Your task to perform on an android device: install app "Paramount+ | Peak Streaming" Image 0: 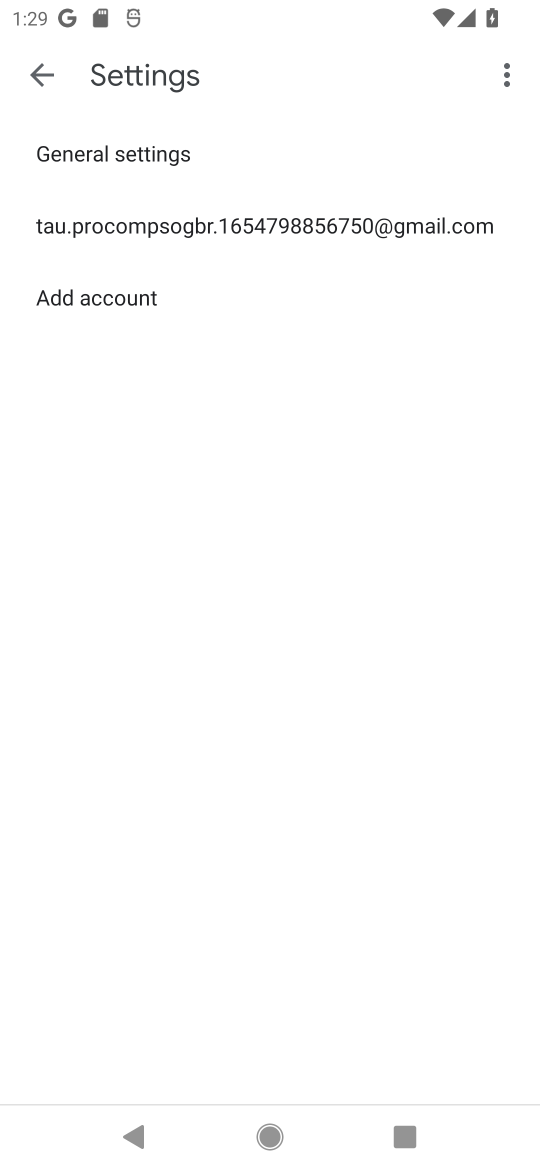
Step 0: press back button
Your task to perform on an android device: install app "Paramount+ | Peak Streaming" Image 1: 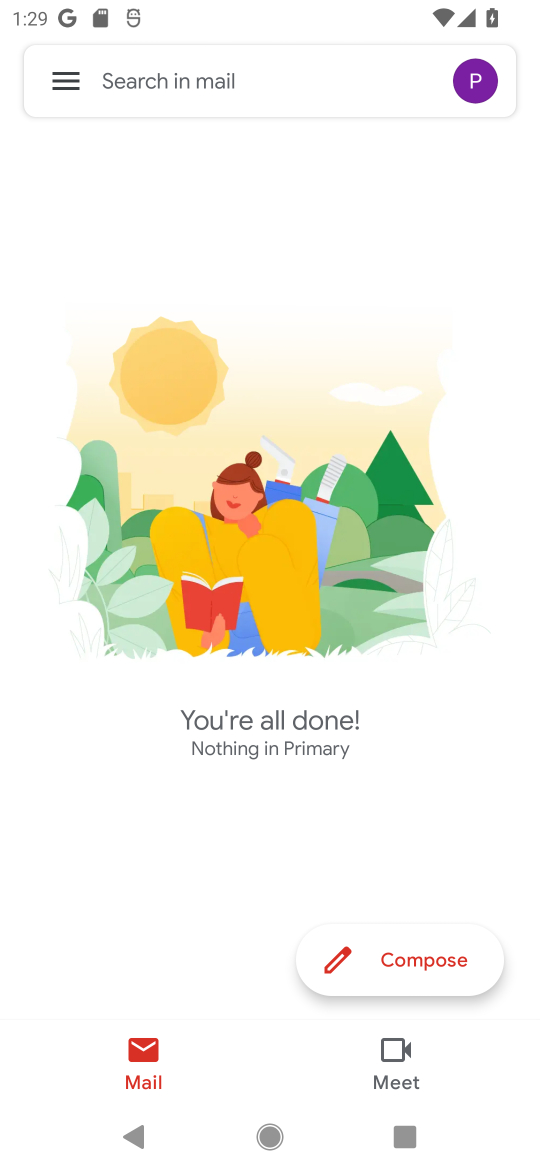
Step 1: press back button
Your task to perform on an android device: install app "Paramount+ | Peak Streaming" Image 2: 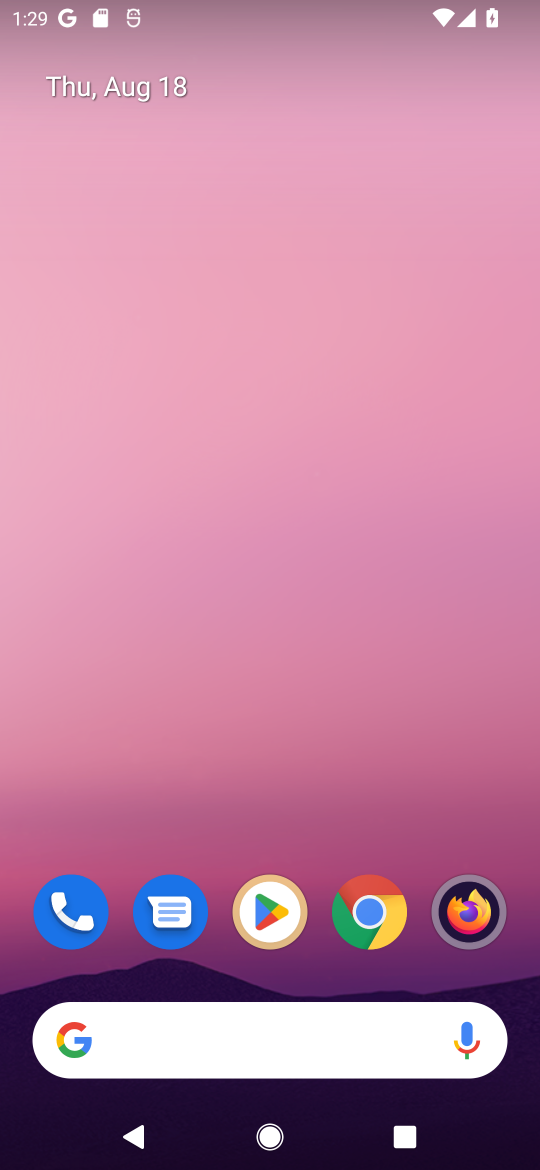
Step 2: click (250, 913)
Your task to perform on an android device: install app "Paramount+ | Peak Streaming" Image 3: 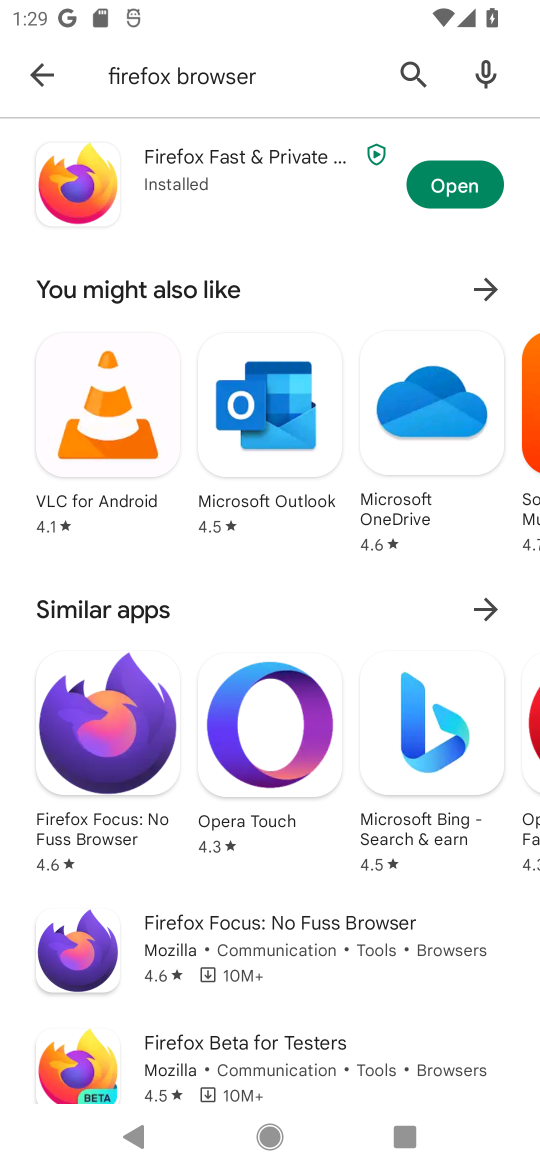
Step 3: click (415, 83)
Your task to perform on an android device: install app "Paramount+ | Peak Streaming" Image 4: 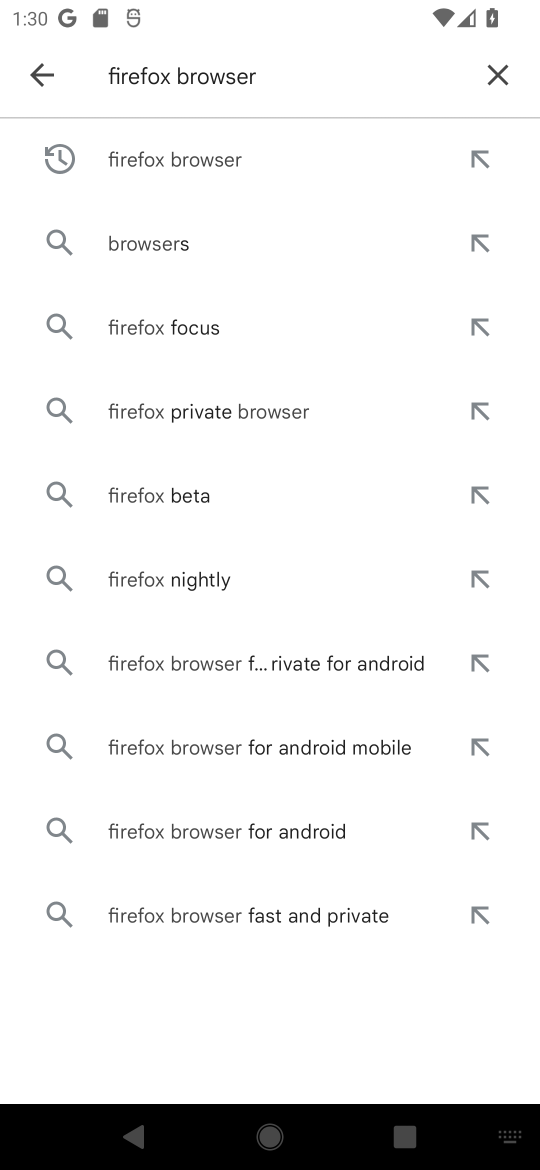
Step 4: click (497, 70)
Your task to perform on an android device: install app "Paramount+ | Peak Streaming" Image 5: 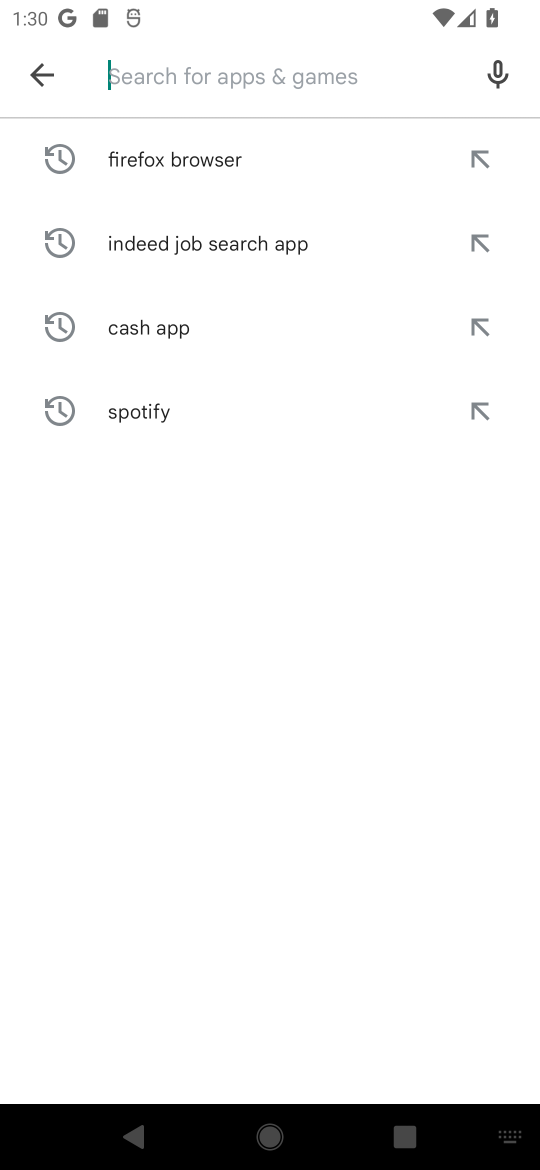
Step 5: click (132, 41)
Your task to perform on an android device: install app "Paramount+ | Peak Streaming" Image 6: 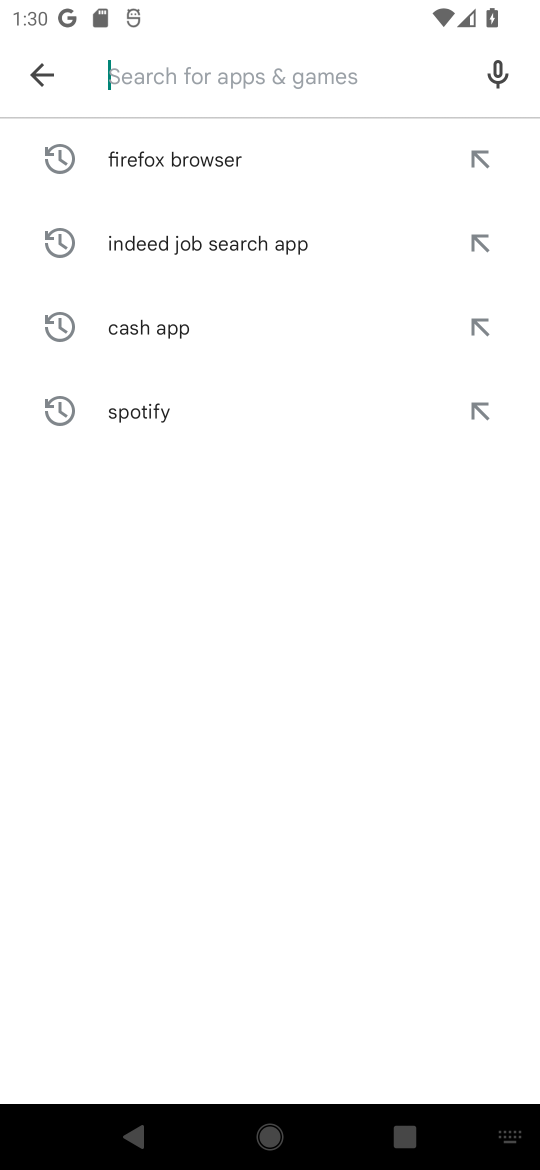
Step 6: type "Paramount+"
Your task to perform on an android device: install app "Paramount+ | Peak Streaming" Image 7: 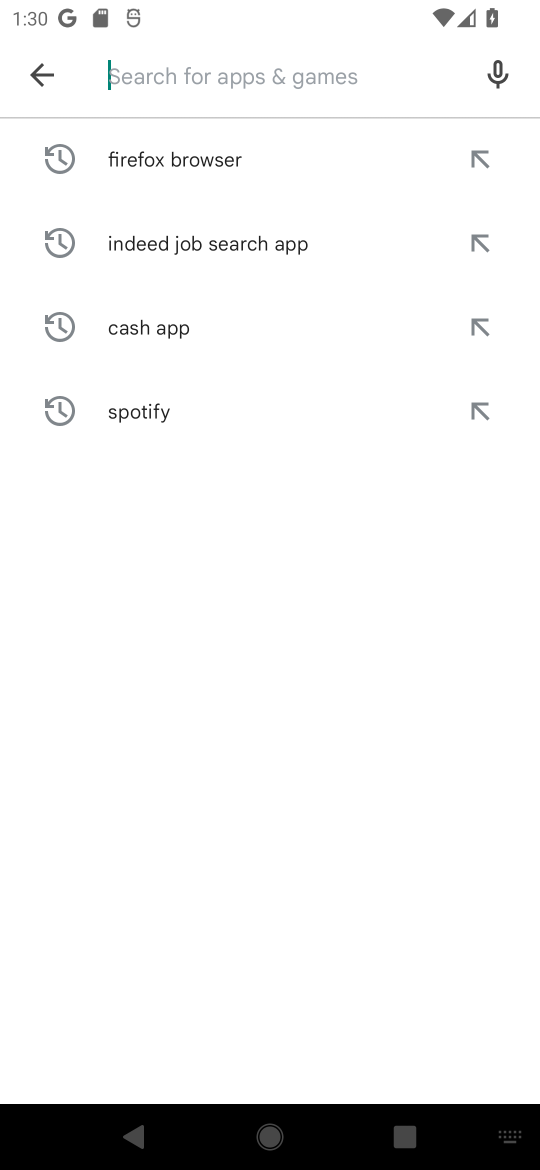
Step 7: click (364, 692)
Your task to perform on an android device: install app "Paramount+ | Peak Streaming" Image 8: 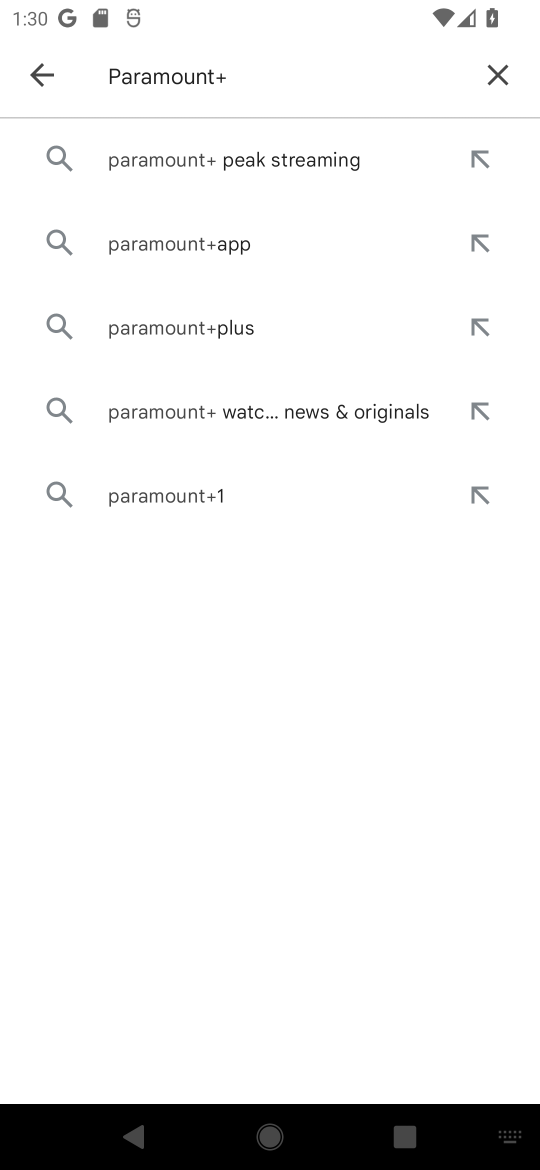
Step 8: click (216, 160)
Your task to perform on an android device: install app "Paramount+ | Peak Streaming" Image 9: 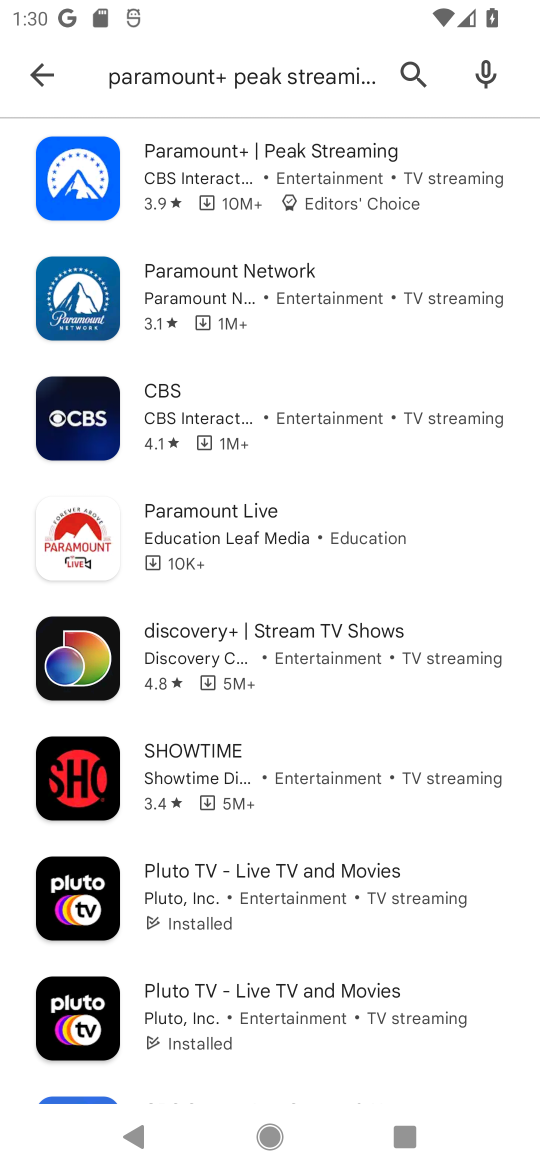
Step 9: click (221, 179)
Your task to perform on an android device: install app "Paramount+ | Peak Streaming" Image 10: 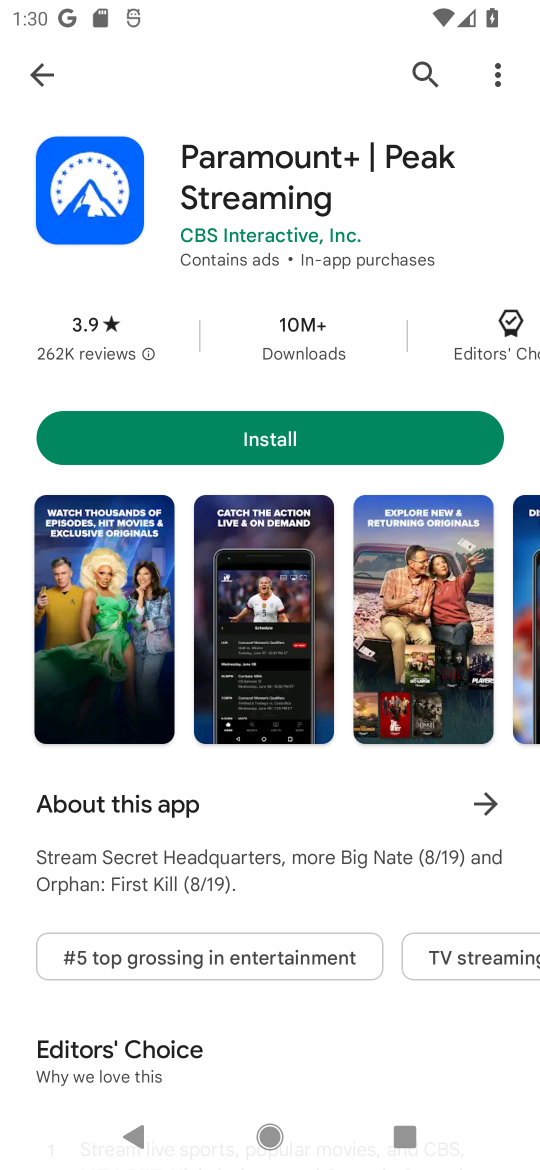
Step 10: click (292, 430)
Your task to perform on an android device: install app "Paramount+ | Peak Streaming" Image 11: 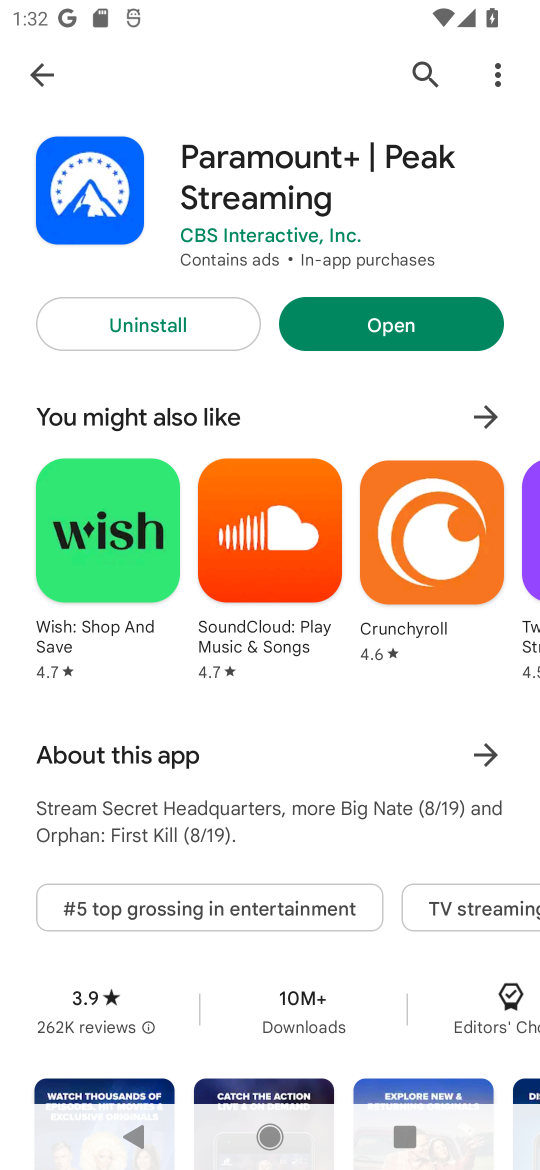
Step 11: task complete